Your task to perform on an android device: change the clock display to digital Image 0: 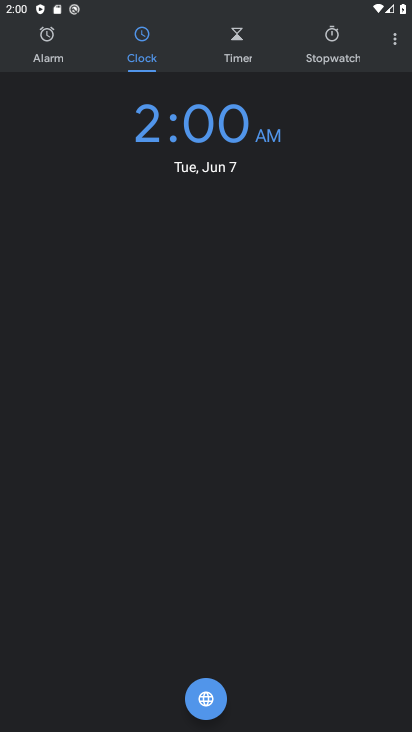
Step 0: press home button
Your task to perform on an android device: change the clock display to digital Image 1: 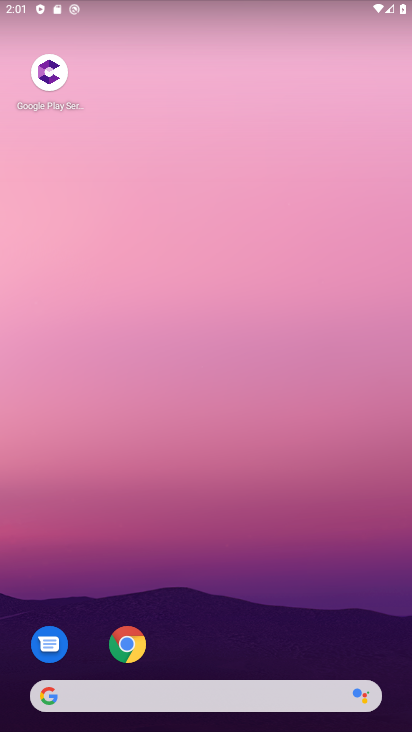
Step 1: drag from (331, 583) to (336, 135)
Your task to perform on an android device: change the clock display to digital Image 2: 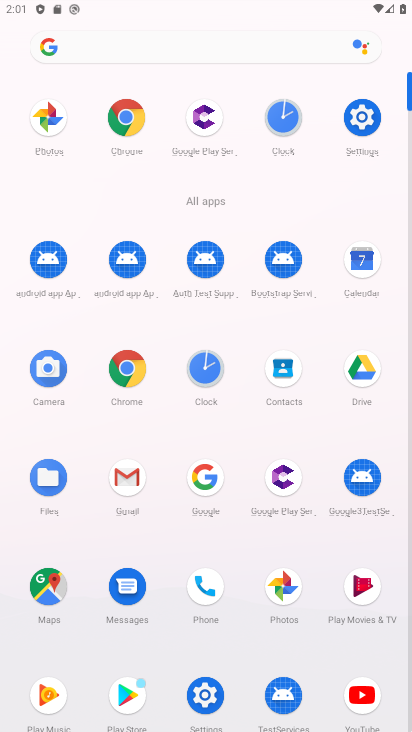
Step 2: click (197, 357)
Your task to perform on an android device: change the clock display to digital Image 3: 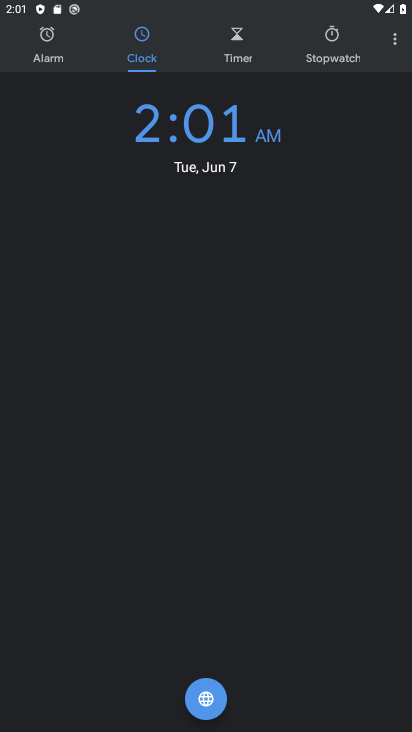
Step 3: click (397, 41)
Your task to perform on an android device: change the clock display to digital Image 4: 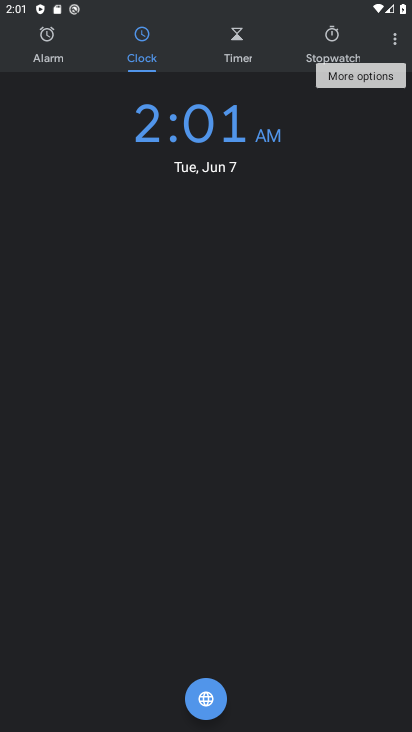
Step 4: click (397, 41)
Your task to perform on an android device: change the clock display to digital Image 5: 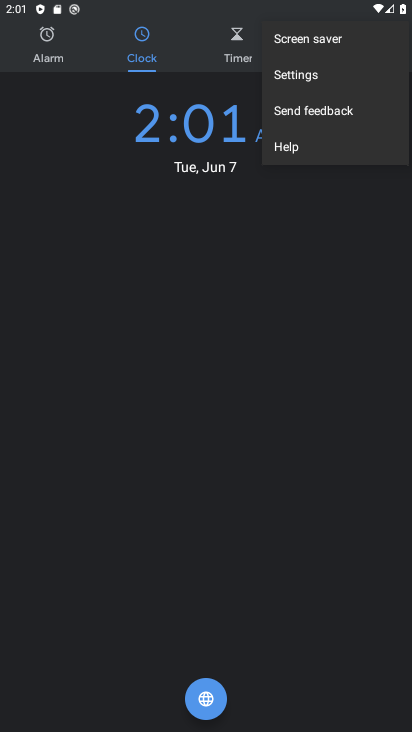
Step 5: click (293, 68)
Your task to perform on an android device: change the clock display to digital Image 6: 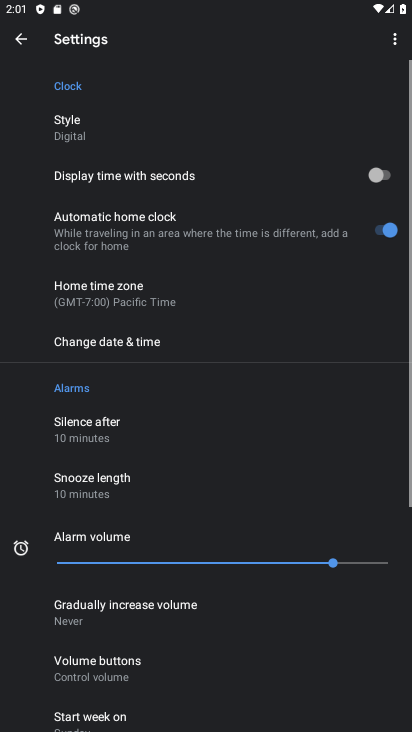
Step 6: task complete